Your task to perform on an android device: Open Google Image 0: 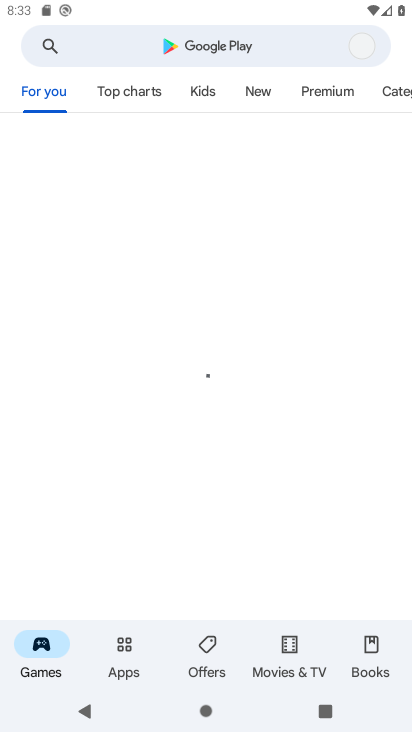
Step 0: press home button
Your task to perform on an android device: Open Google Image 1: 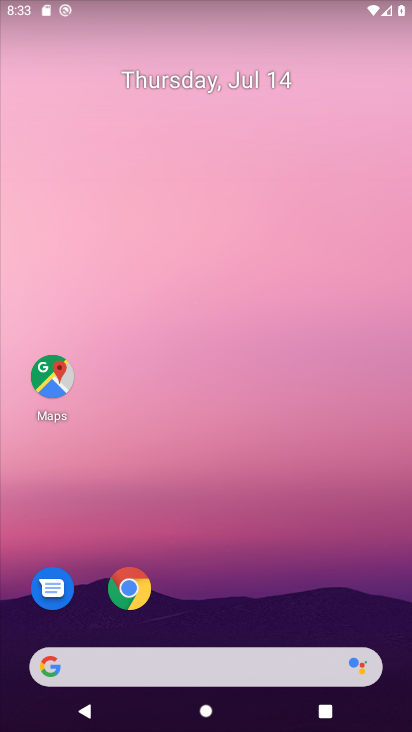
Step 1: drag from (325, 503) to (363, 73)
Your task to perform on an android device: Open Google Image 2: 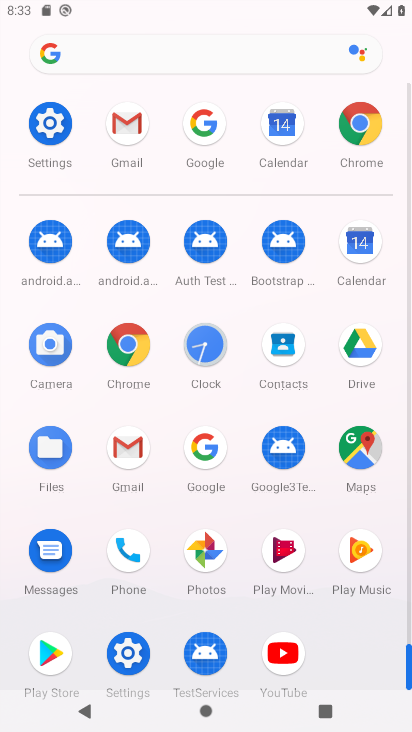
Step 2: click (207, 451)
Your task to perform on an android device: Open Google Image 3: 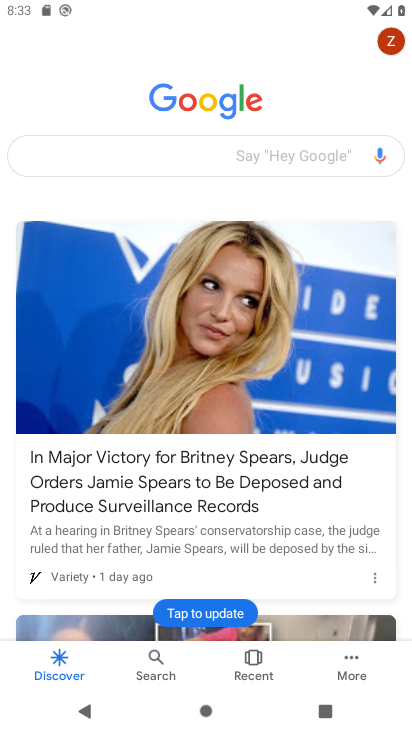
Step 3: task complete